Your task to perform on an android device: manage bookmarks in the chrome app Image 0: 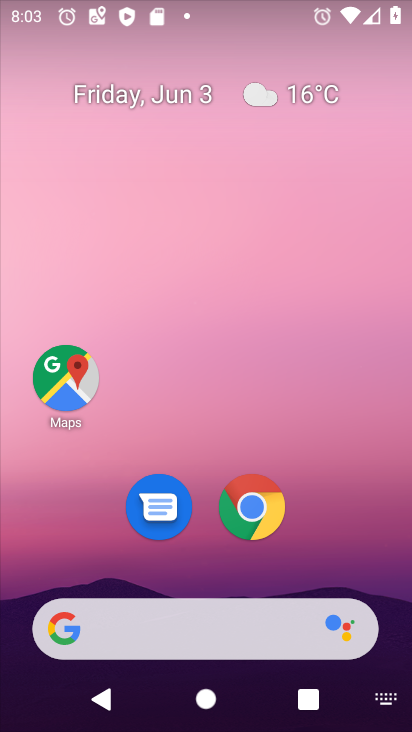
Step 0: click (260, 512)
Your task to perform on an android device: manage bookmarks in the chrome app Image 1: 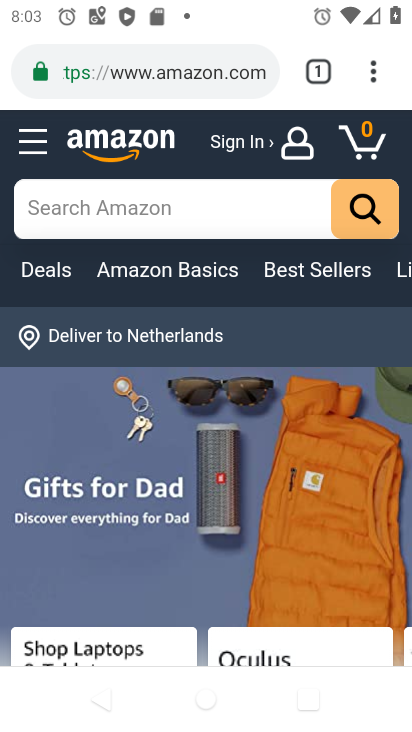
Step 1: click (376, 81)
Your task to perform on an android device: manage bookmarks in the chrome app Image 2: 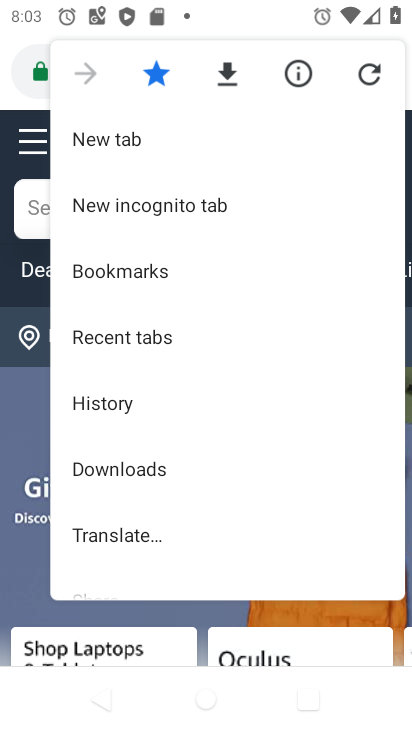
Step 2: click (145, 273)
Your task to perform on an android device: manage bookmarks in the chrome app Image 3: 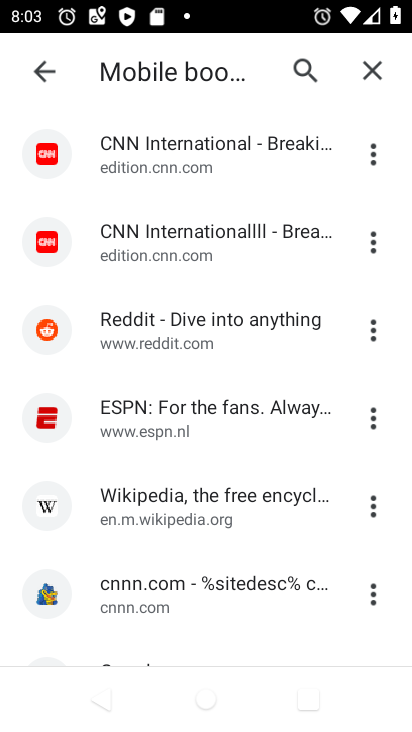
Step 3: click (188, 175)
Your task to perform on an android device: manage bookmarks in the chrome app Image 4: 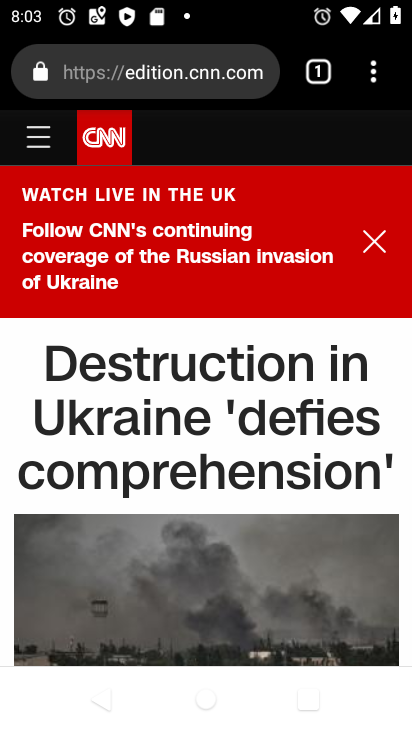
Step 4: click (369, 68)
Your task to perform on an android device: manage bookmarks in the chrome app Image 5: 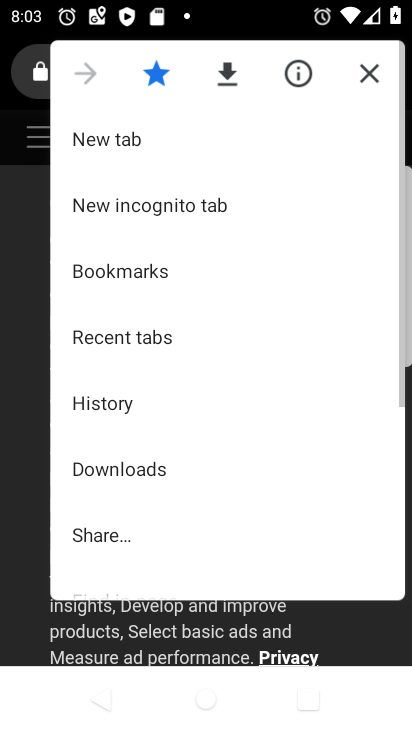
Step 5: click (168, 284)
Your task to perform on an android device: manage bookmarks in the chrome app Image 6: 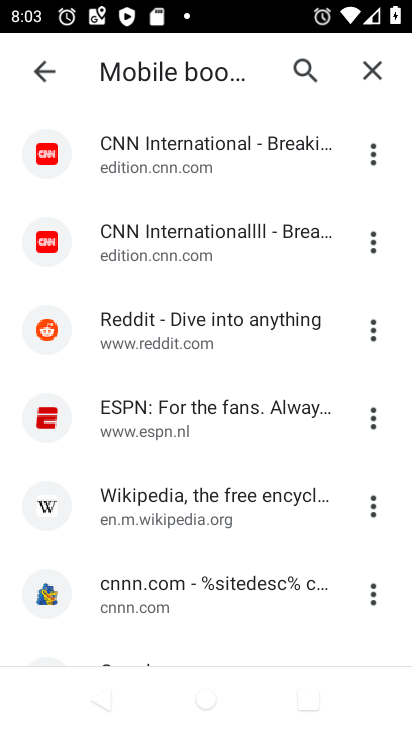
Step 6: click (366, 160)
Your task to perform on an android device: manage bookmarks in the chrome app Image 7: 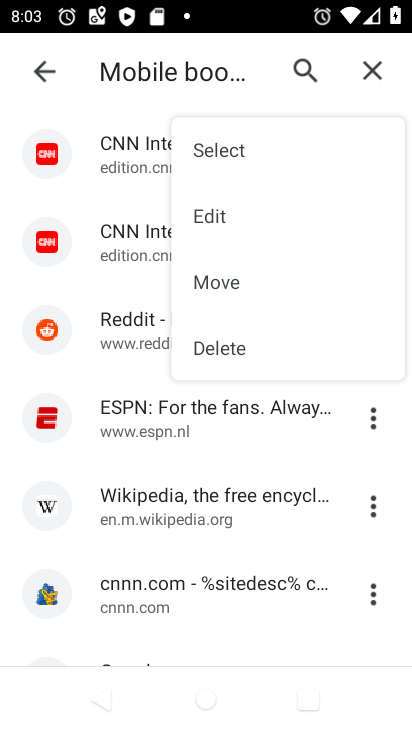
Step 7: click (276, 341)
Your task to perform on an android device: manage bookmarks in the chrome app Image 8: 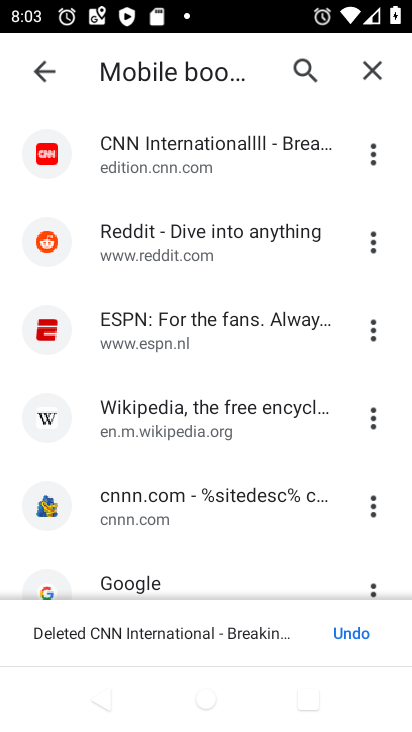
Step 8: task complete